Your task to perform on an android device: Go to Reddit.com Image 0: 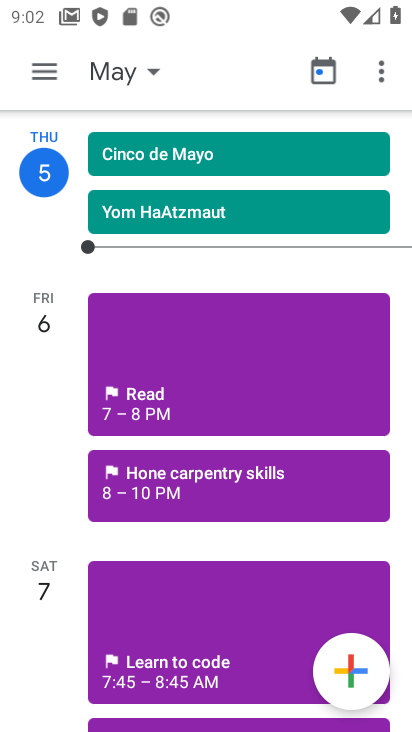
Step 0: drag from (193, 516) to (274, 87)
Your task to perform on an android device: Go to Reddit.com Image 1: 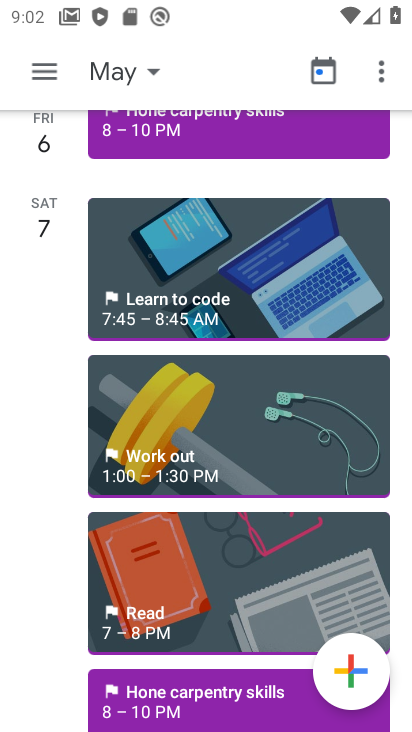
Step 1: press home button
Your task to perform on an android device: Go to Reddit.com Image 2: 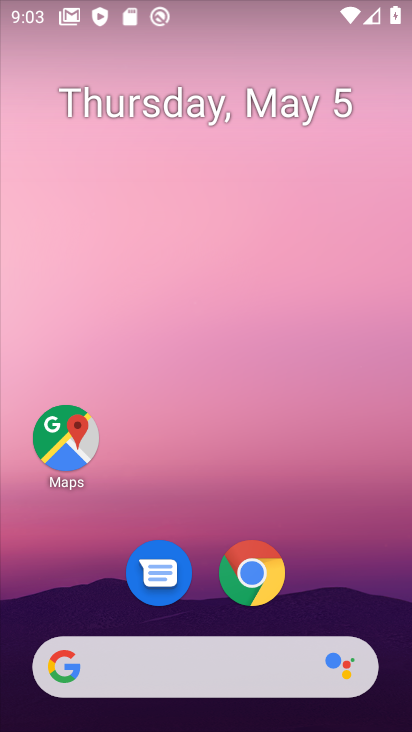
Step 2: click (242, 578)
Your task to perform on an android device: Go to Reddit.com Image 3: 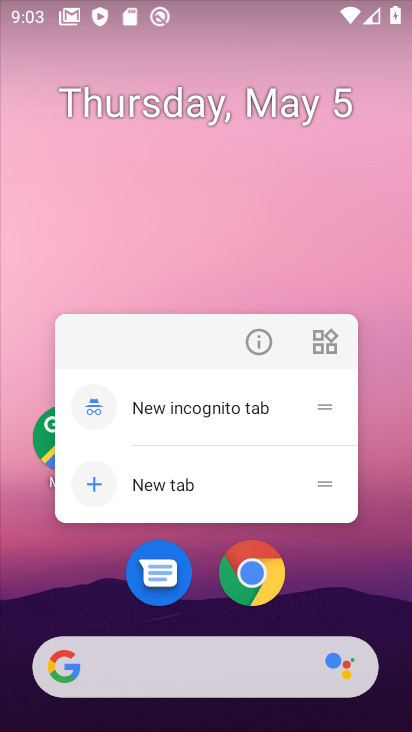
Step 3: click (260, 570)
Your task to perform on an android device: Go to Reddit.com Image 4: 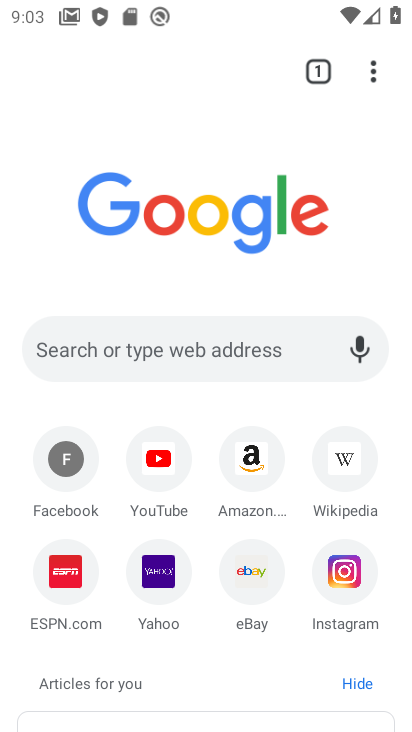
Step 4: click (162, 351)
Your task to perform on an android device: Go to Reddit.com Image 5: 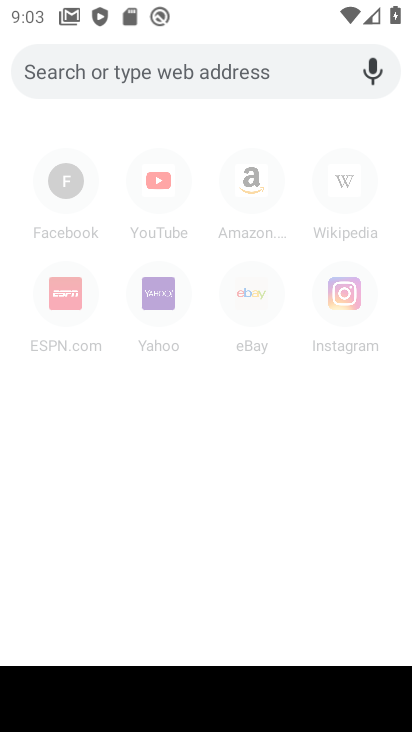
Step 5: type "reddit.com"
Your task to perform on an android device: Go to Reddit.com Image 6: 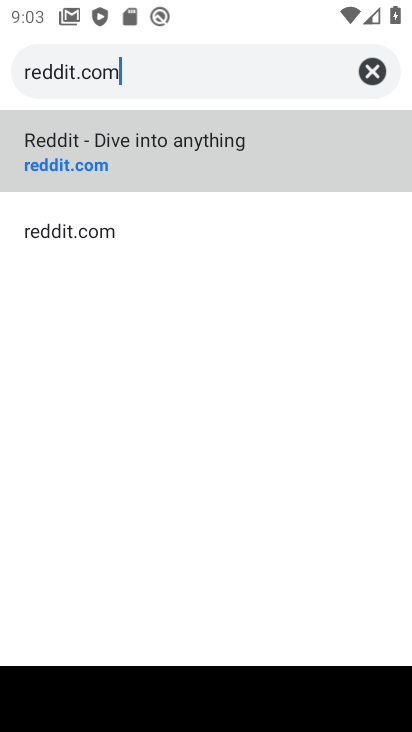
Step 6: click (141, 160)
Your task to perform on an android device: Go to Reddit.com Image 7: 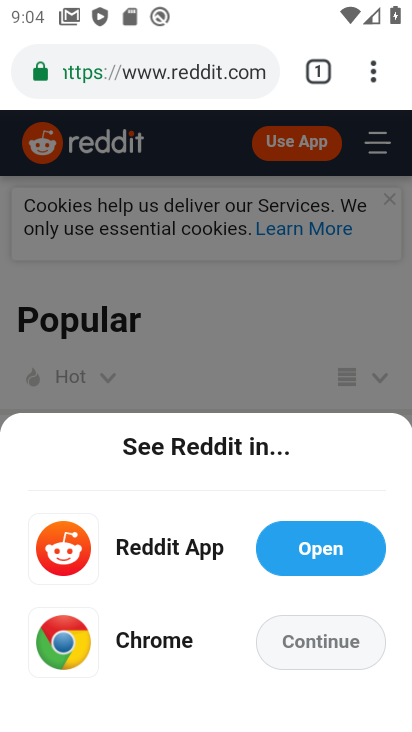
Step 7: task complete